Your task to perform on an android device: open device folders in google photos Image 0: 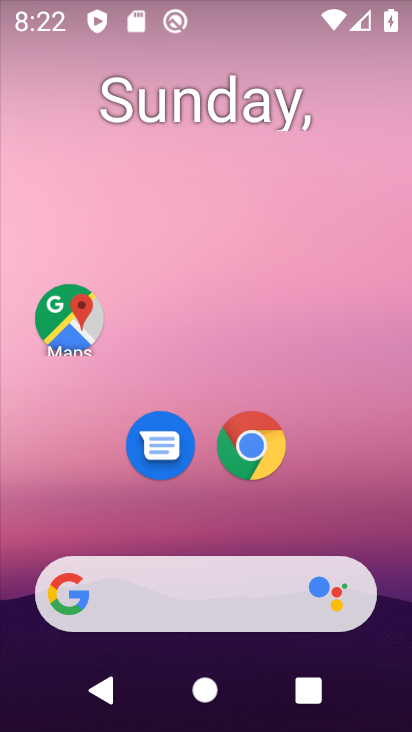
Step 0: drag from (368, 482) to (292, 190)
Your task to perform on an android device: open device folders in google photos Image 1: 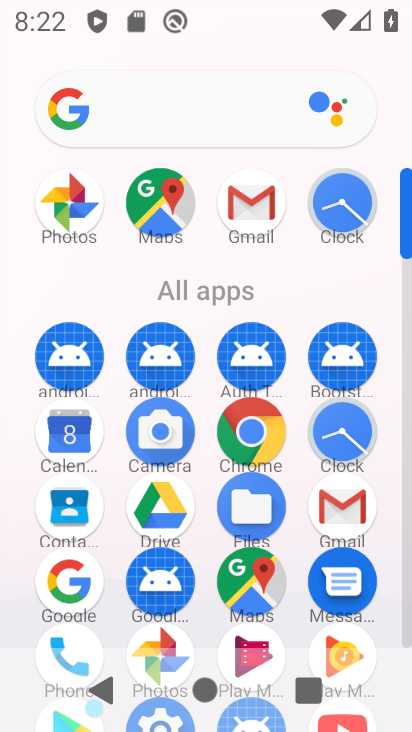
Step 1: drag from (307, 528) to (309, 254)
Your task to perform on an android device: open device folders in google photos Image 2: 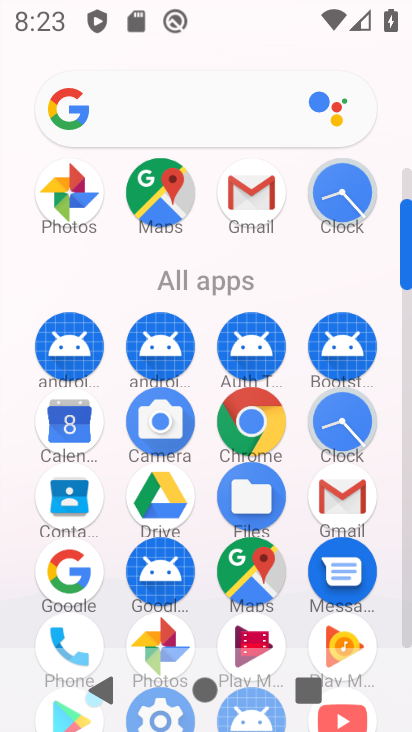
Step 2: click (170, 633)
Your task to perform on an android device: open device folders in google photos Image 3: 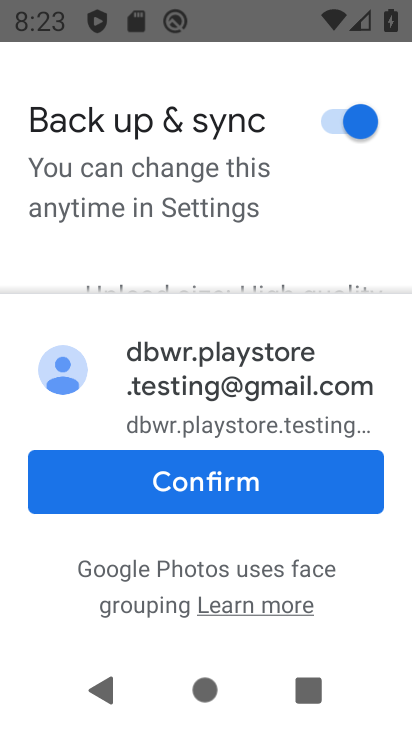
Step 3: click (73, 96)
Your task to perform on an android device: open device folders in google photos Image 4: 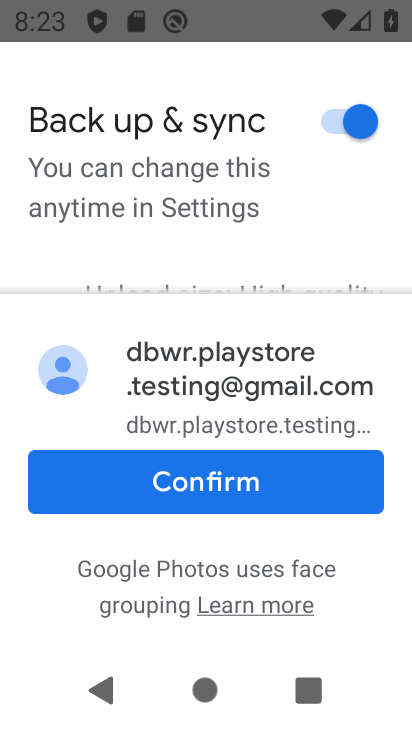
Step 4: click (312, 478)
Your task to perform on an android device: open device folders in google photos Image 5: 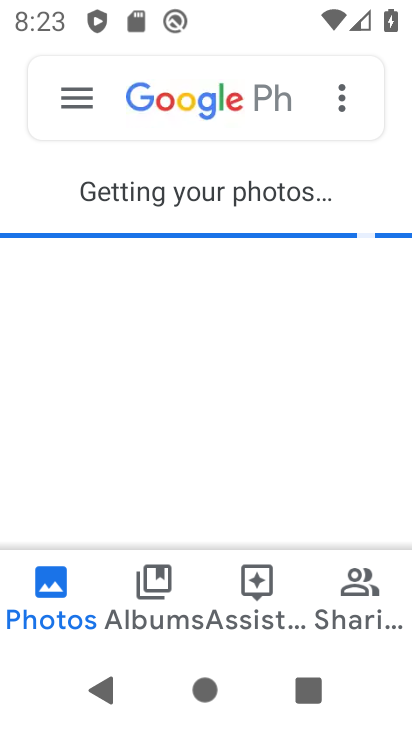
Step 5: click (79, 94)
Your task to perform on an android device: open device folders in google photos Image 6: 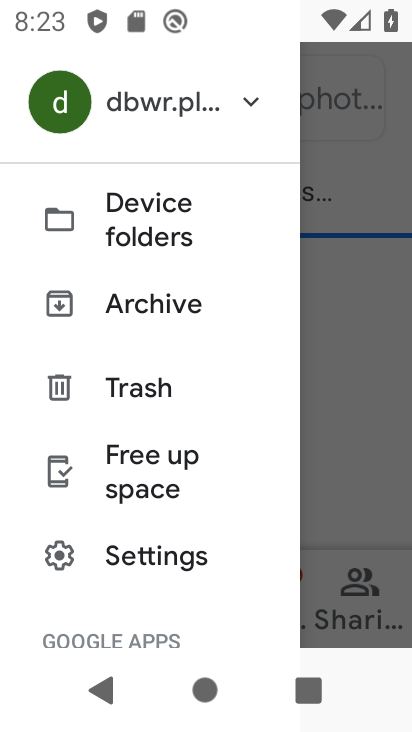
Step 6: click (153, 221)
Your task to perform on an android device: open device folders in google photos Image 7: 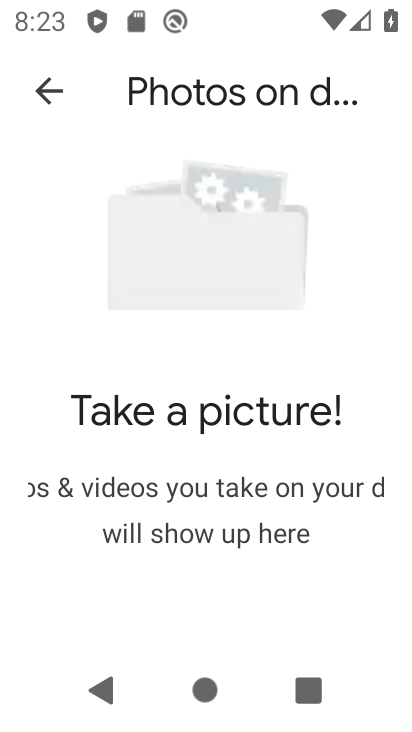
Step 7: task complete